Your task to perform on an android device: clear all cookies in the chrome app Image 0: 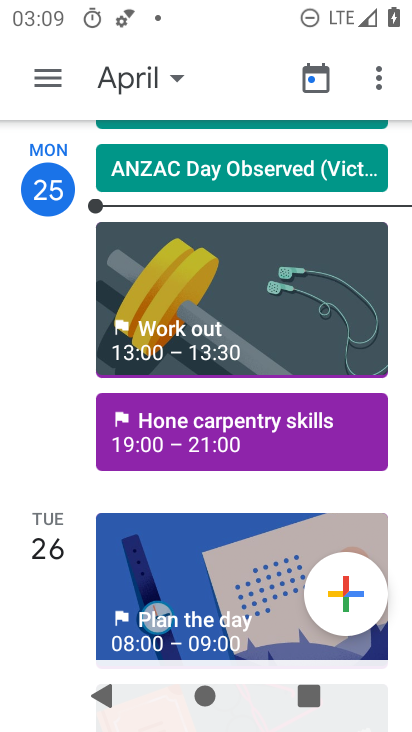
Step 0: press home button
Your task to perform on an android device: clear all cookies in the chrome app Image 1: 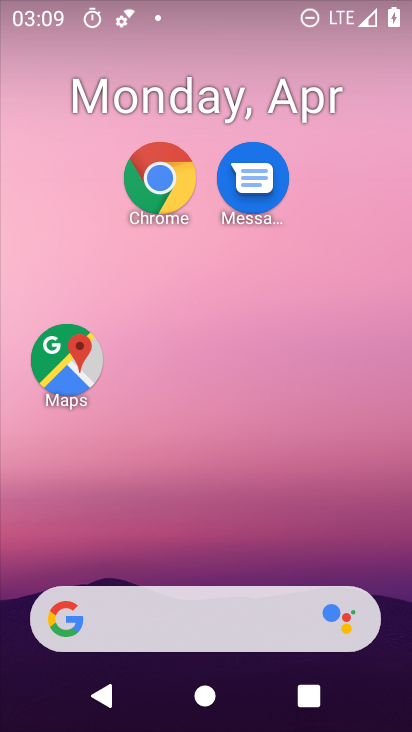
Step 1: drag from (225, 629) to (250, 5)
Your task to perform on an android device: clear all cookies in the chrome app Image 2: 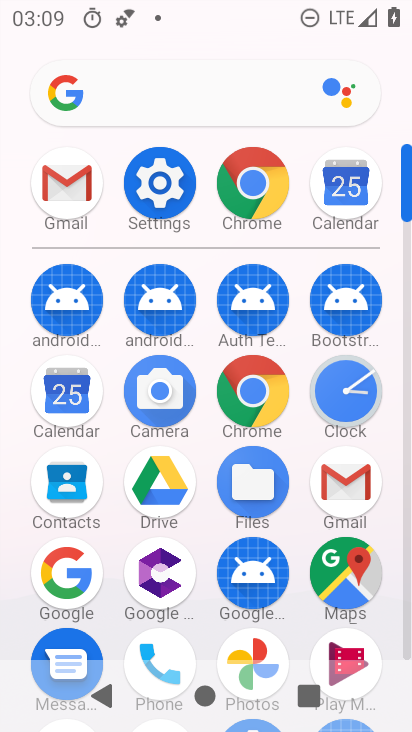
Step 2: click (244, 405)
Your task to perform on an android device: clear all cookies in the chrome app Image 3: 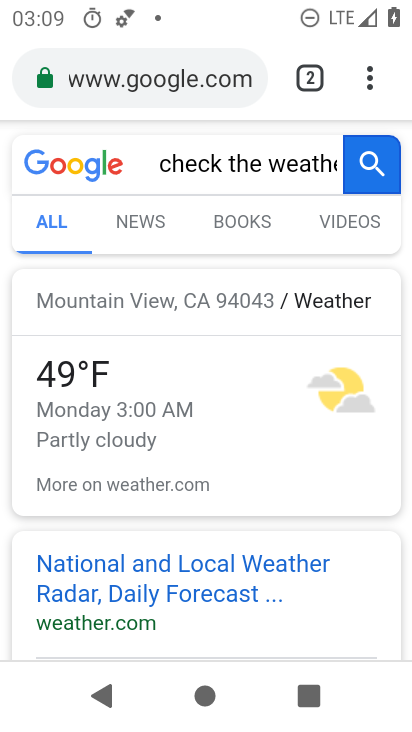
Step 3: click (215, 79)
Your task to perform on an android device: clear all cookies in the chrome app Image 4: 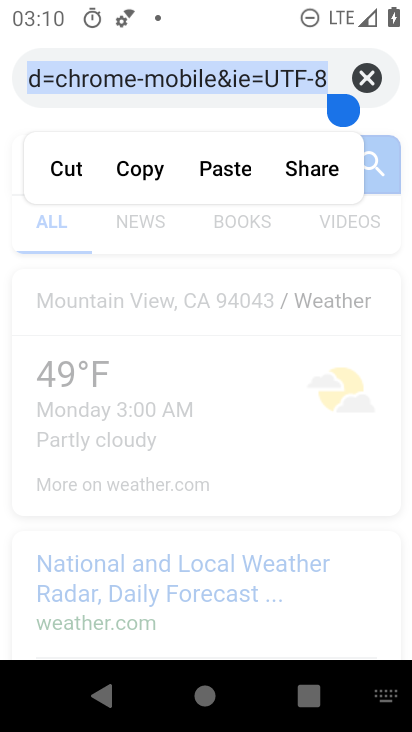
Step 4: press back button
Your task to perform on an android device: clear all cookies in the chrome app Image 5: 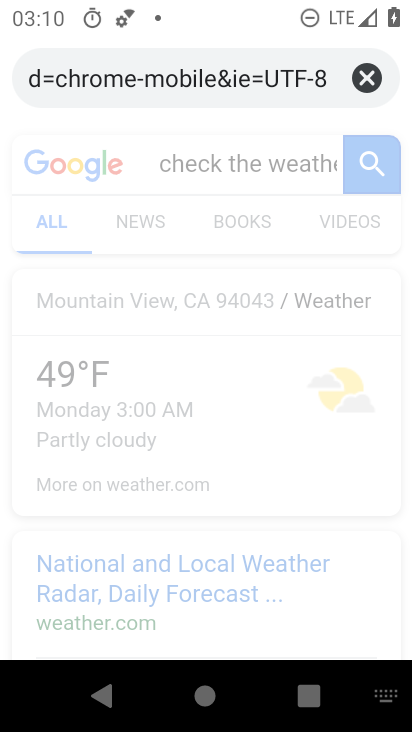
Step 5: click (361, 84)
Your task to perform on an android device: clear all cookies in the chrome app Image 6: 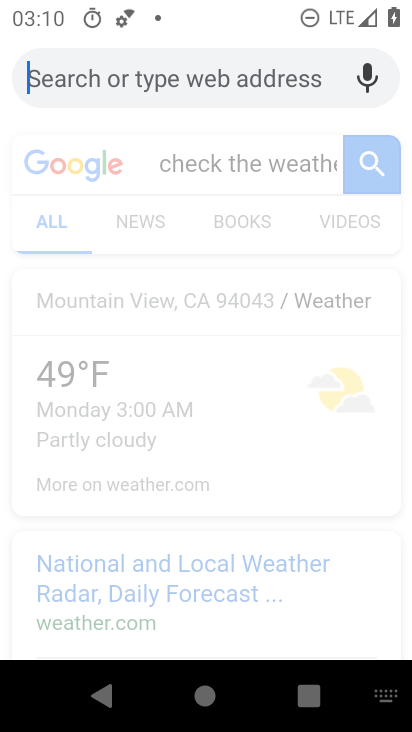
Step 6: press back button
Your task to perform on an android device: clear all cookies in the chrome app Image 7: 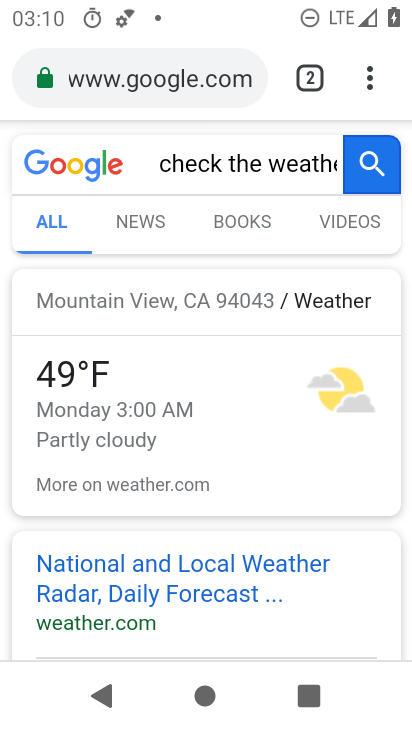
Step 7: drag from (362, 65) to (106, 570)
Your task to perform on an android device: clear all cookies in the chrome app Image 8: 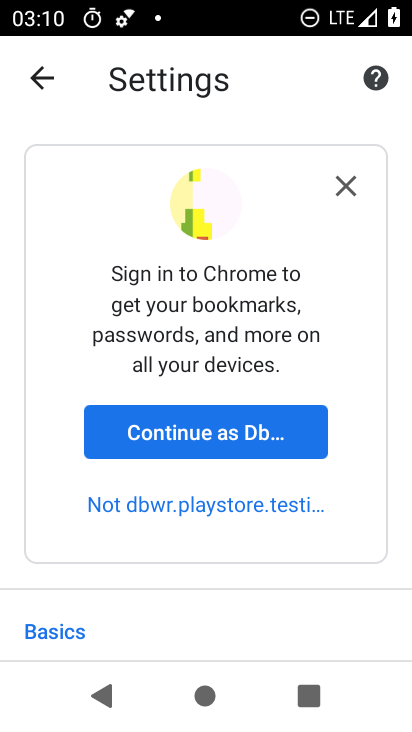
Step 8: drag from (220, 630) to (197, 116)
Your task to perform on an android device: clear all cookies in the chrome app Image 9: 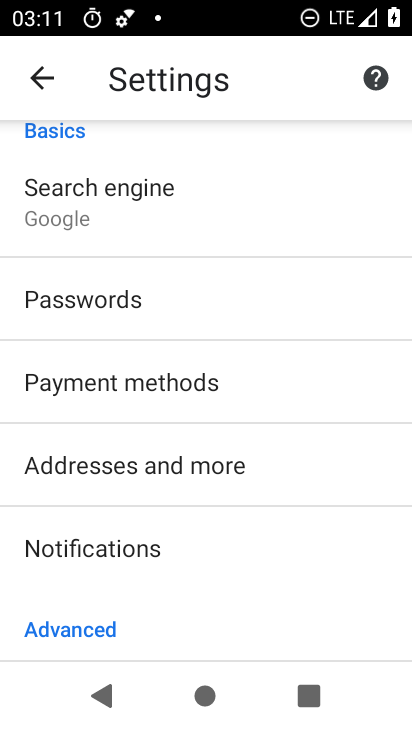
Step 9: drag from (162, 619) to (140, 81)
Your task to perform on an android device: clear all cookies in the chrome app Image 10: 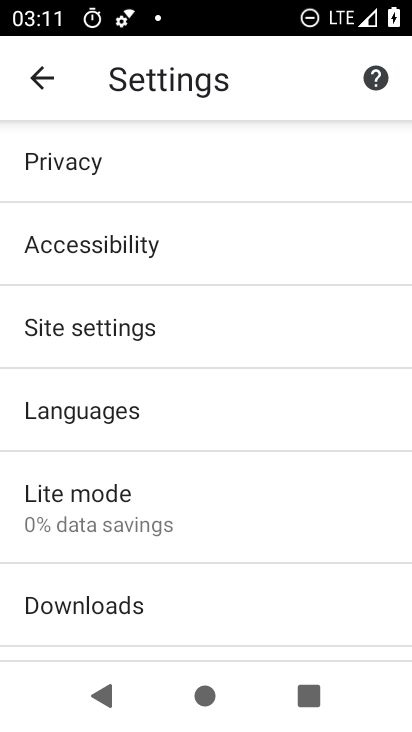
Step 10: click (134, 162)
Your task to perform on an android device: clear all cookies in the chrome app Image 11: 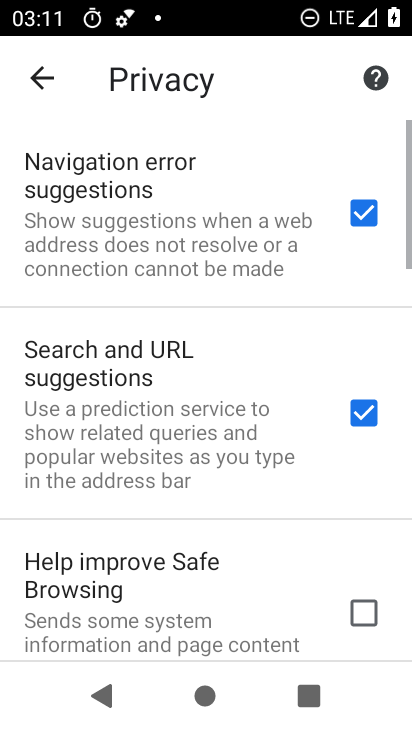
Step 11: drag from (230, 597) to (164, 96)
Your task to perform on an android device: clear all cookies in the chrome app Image 12: 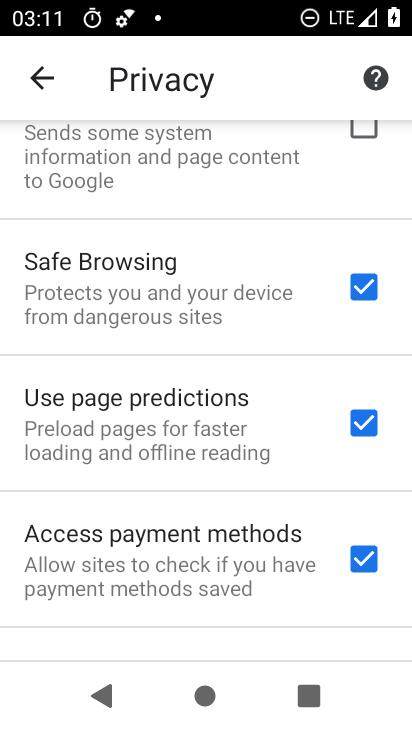
Step 12: drag from (230, 617) to (168, 55)
Your task to perform on an android device: clear all cookies in the chrome app Image 13: 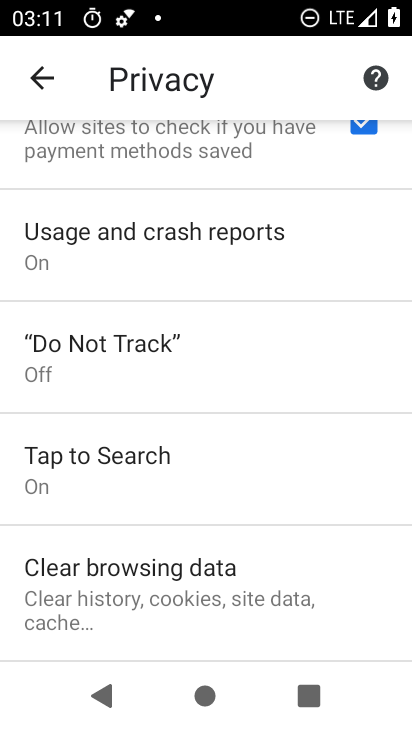
Step 13: click (219, 613)
Your task to perform on an android device: clear all cookies in the chrome app Image 14: 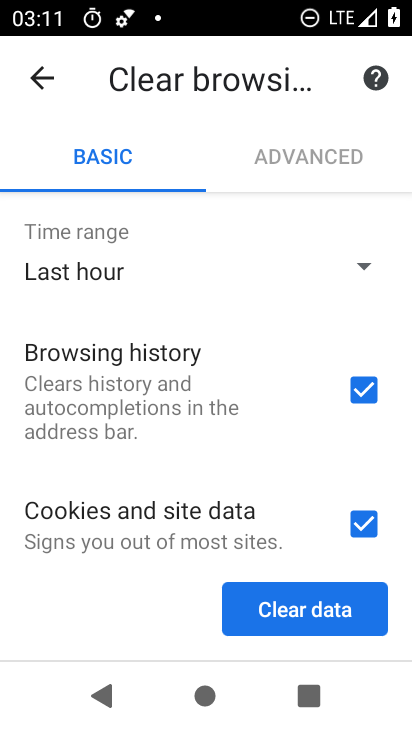
Step 14: click (327, 611)
Your task to perform on an android device: clear all cookies in the chrome app Image 15: 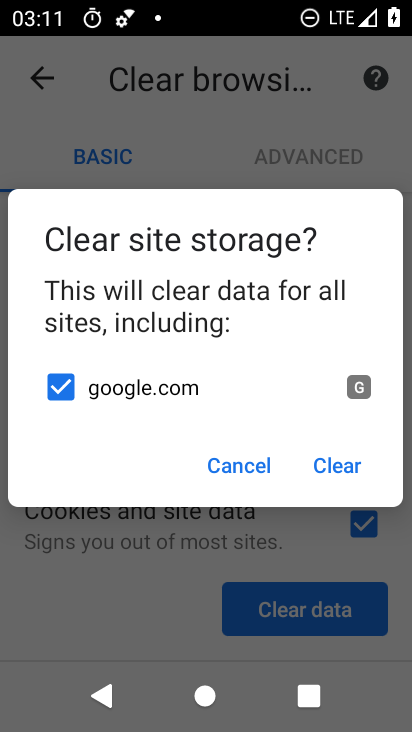
Step 15: click (332, 473)
Your task to perform on an android device: clear all cookies in the chrome app Image 16: 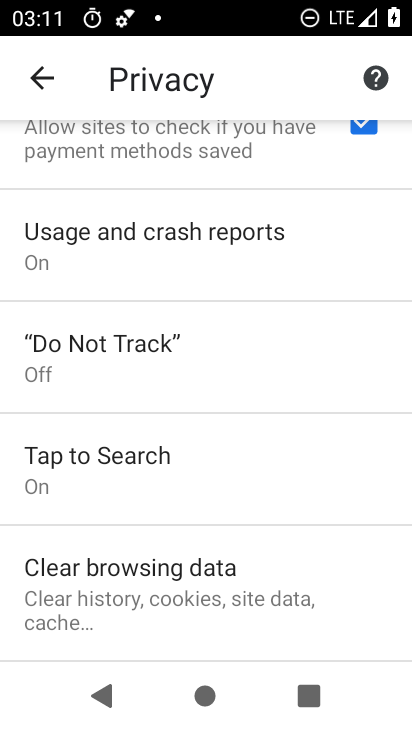
Step 16: task complete